Your task to perform on an android device: turn on the 24-hour format for clock Image 0: 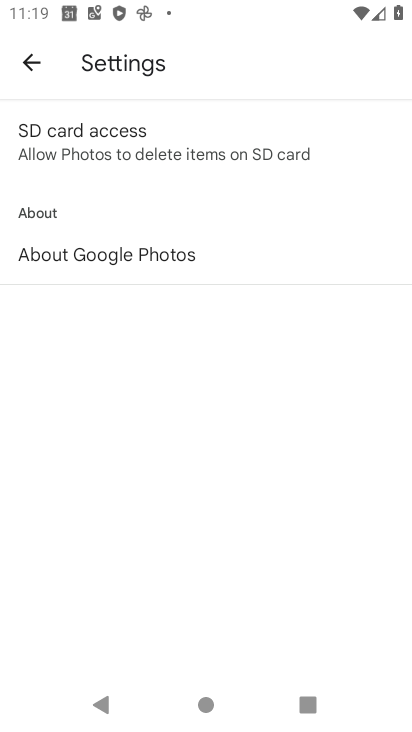
Step 0: click (38, 60)
Your task to perform on an android device: turn on the 24-hour format for clock Image 1: 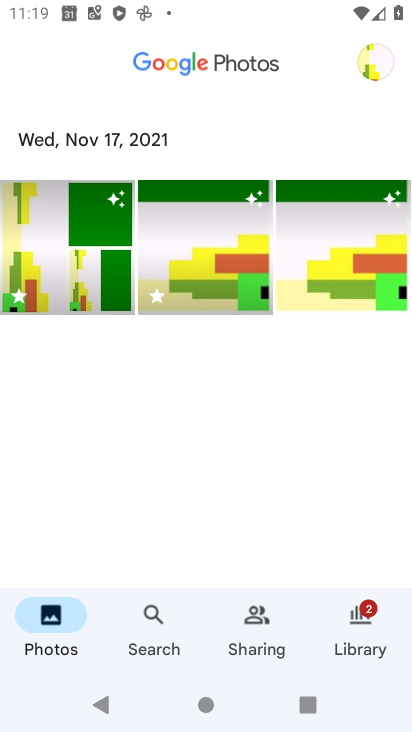
Step 1: click (210, 710)
Your task to perform on an android device: turn on the 24-hour format for clock Image 2: 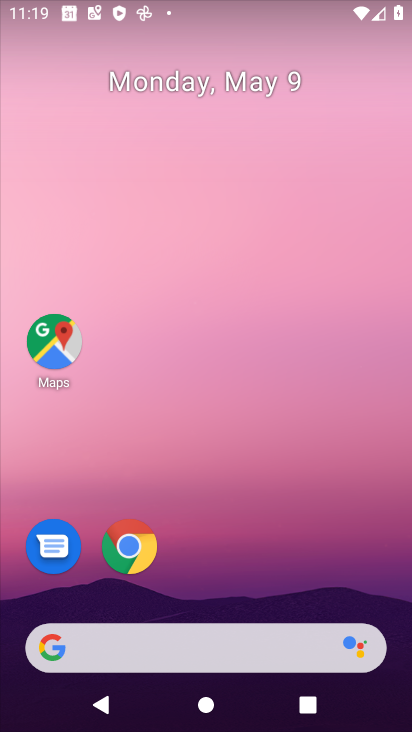
Step 2: drag from (263, 709) to (217, 33)
Your task to perform on an android device: turn on the 24-hour format for clock Image 3: 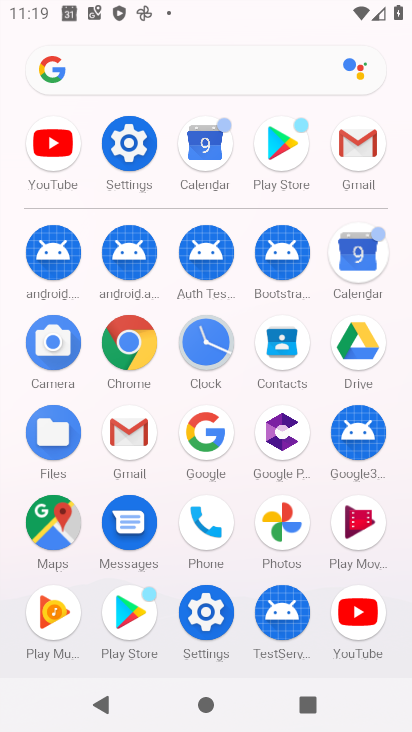
Step 3: click (209, 352)
Your task to perform on an android device: turn on the 24-hour format for clock Image 4: 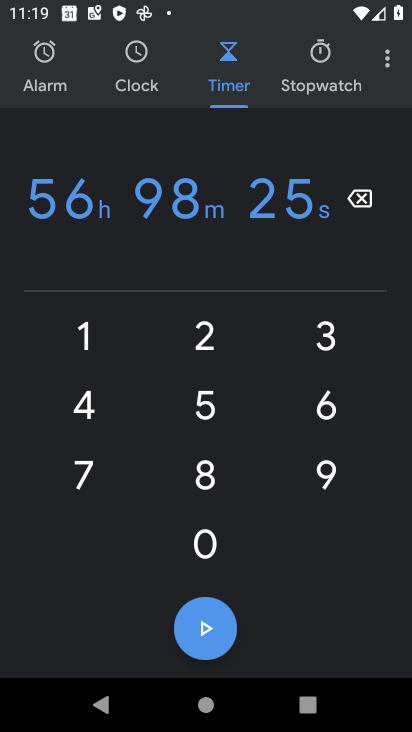
Step 4: click (390, 61)
Your task to perform on an android device: turn on the 24-hour format for clock Image 5: 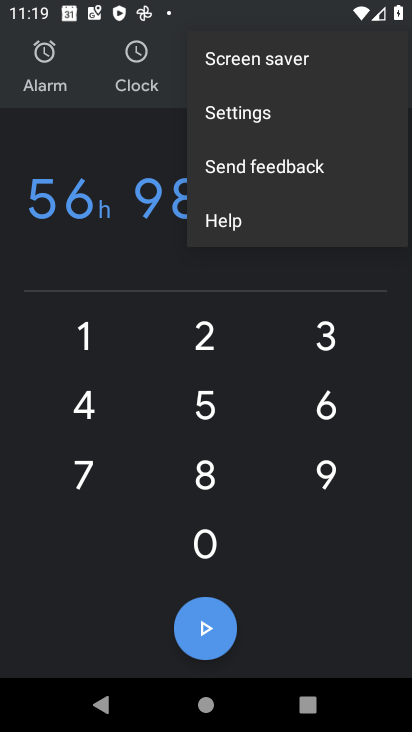
Step 5: click (272, 109)
Your task to perform on an android device: turn on the 24-hour format for clock Image 6: 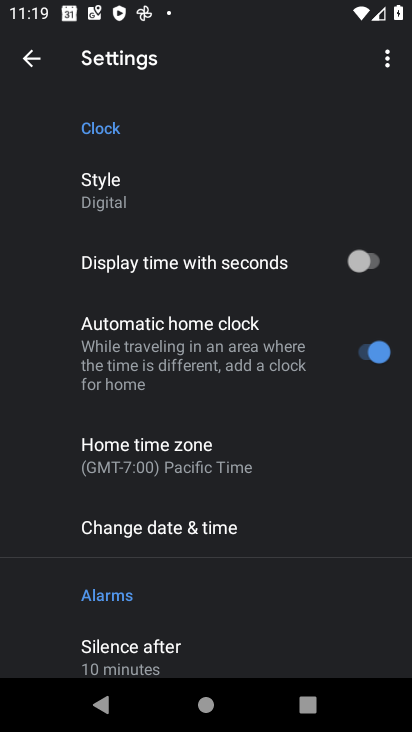
Step 6: click (237, 533)
Your task to perform on an android device: turn on the 24-hour format for clock Image 7: 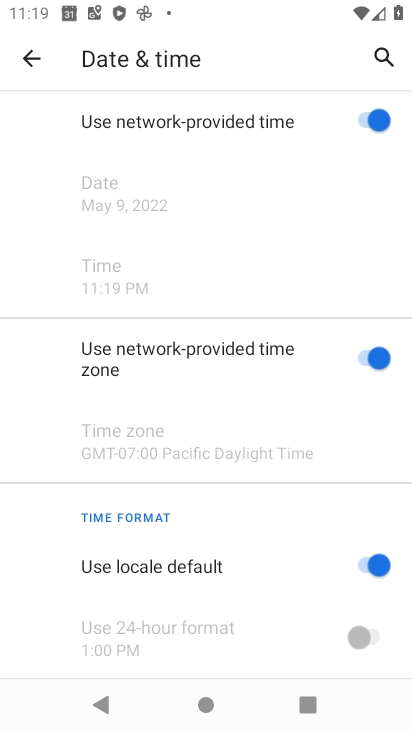
Step 7: click (375, 569)
Your task to perform on an android device: turn on the 24-hour format for clock Image 8: 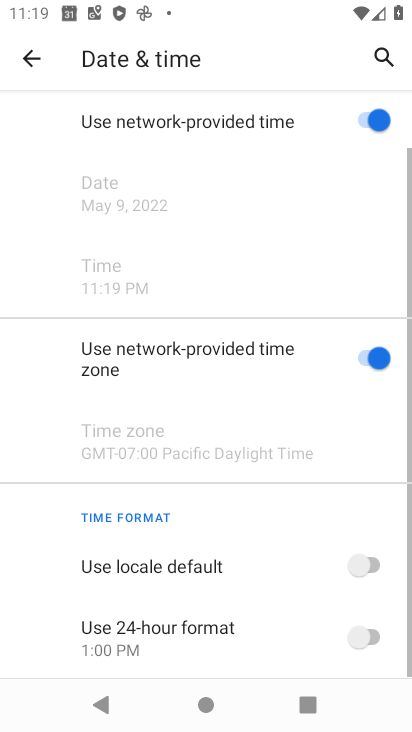
Step 8: click (357, 637)
Your task to perform on an android device: turn on the 24-hour format for clock Image 9: 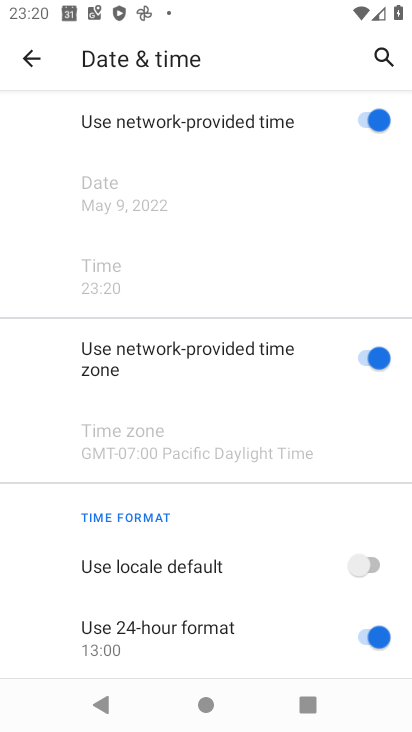
Step 9: task complete